Your task to perform on an android device: Open display settings Image 0: 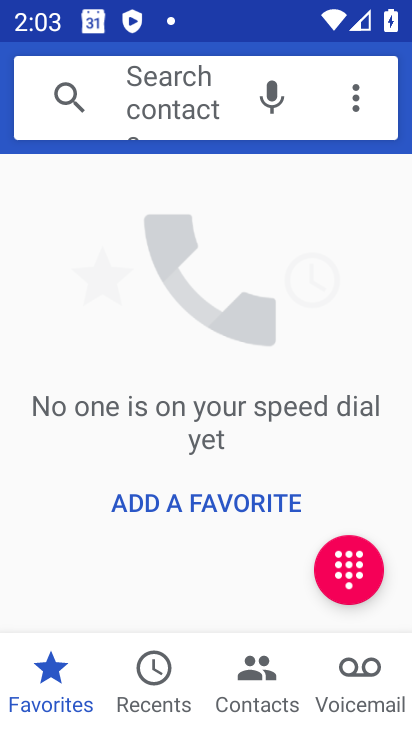
Step 0: press home button
Your task to perform on an android device: Open display settings Image 1: 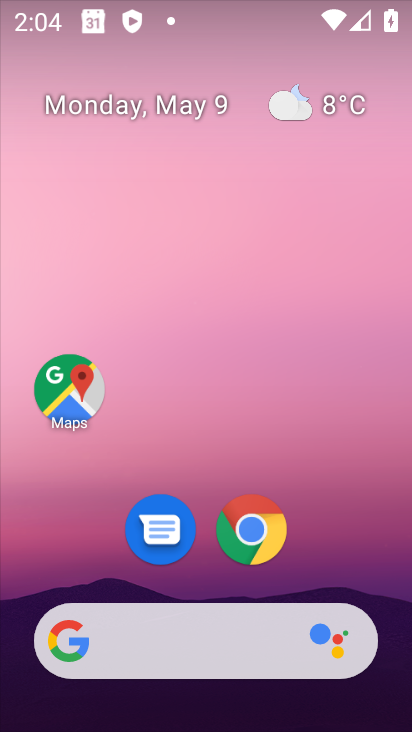
Step 1: drag from (260, 706) to (119, 90)
Your task to perform on an android device: Open display settings Image 2: 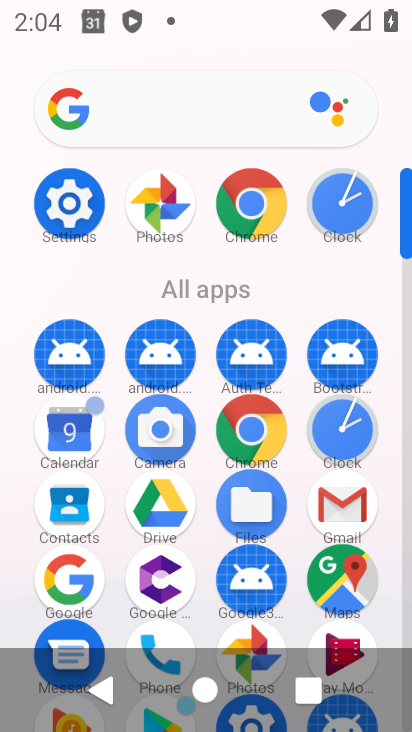
Step 2: click (46, 197)
Your task to perform on an android device: Open display settings Image 3: 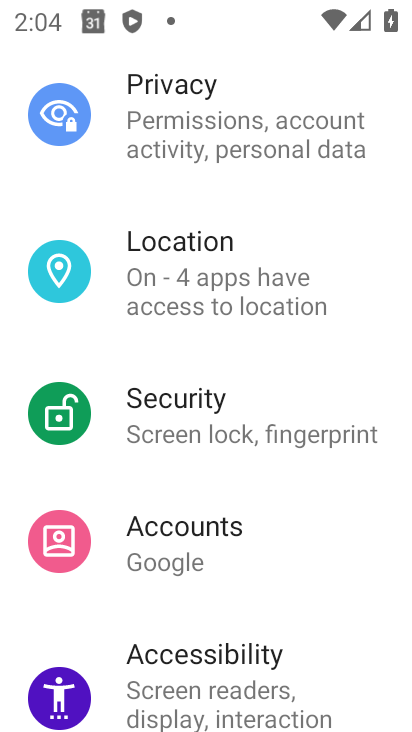
Step 3: drag from (263, 139) to (186, 661)
Your task to perform on an android device: Open display settings Image 4: 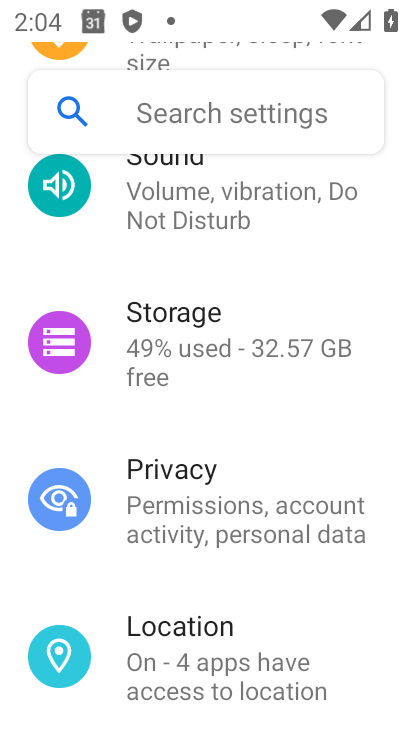
Step 4: drag from (291, 308) to (296, 639)
Your task to perform on an android device: Open display settings Image 5: 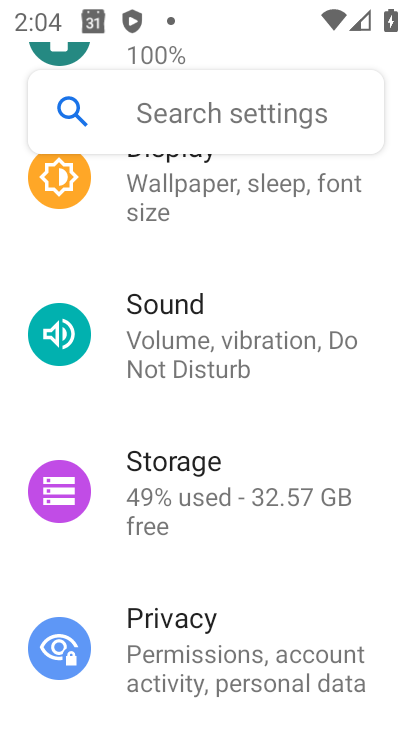
Step 5: drag from (269, 192) to (234, 685)
Your task to perform on an android device: Open display settings Image 6: 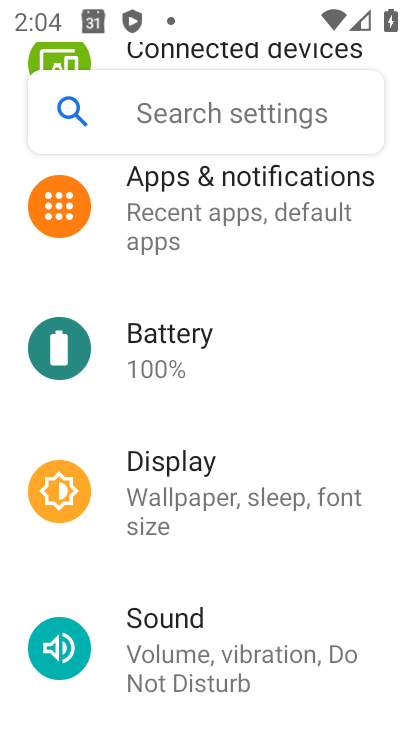
Step 6: click (183, 486)
Your task to perform on an android device: Open display settings Image 7: 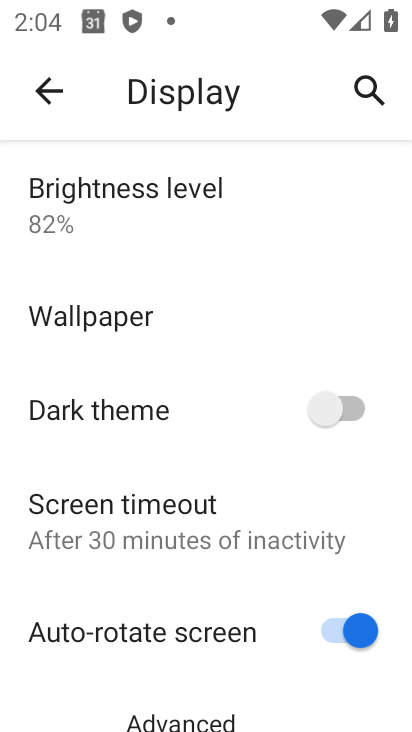
Step 7: task complete